Your task to perform on an android device: toggle notifications settings in the gmail app Image 0: 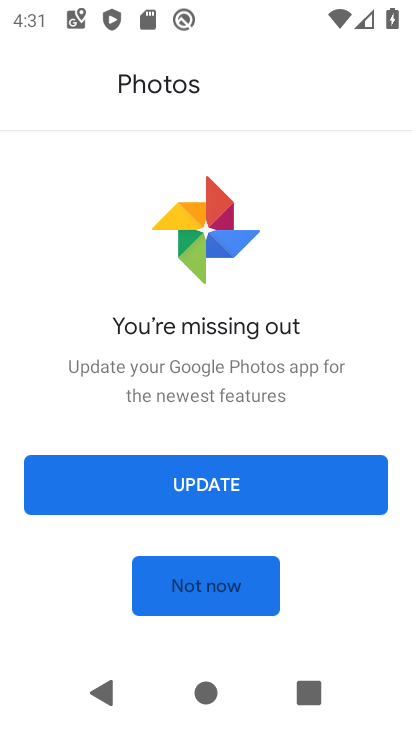
Step 0: press home button
Your task to perform on an android device: toggle notifications settings in the gmail app Image 1: 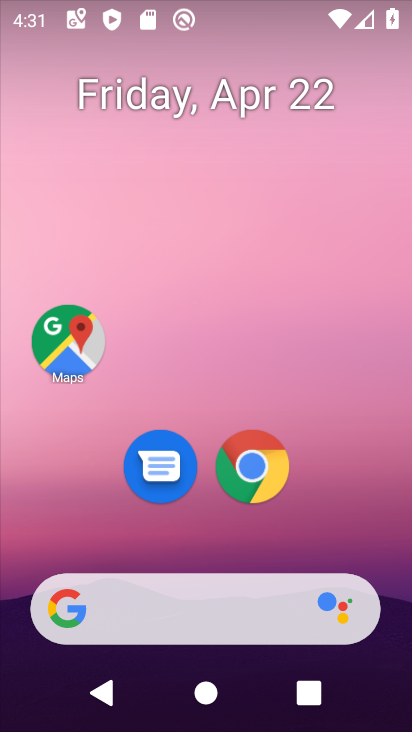
Step 1: drag from (325, 485) to (224, 122)
Your task to perform on an android device: toggle notifications settings in the gmail app Image 2: 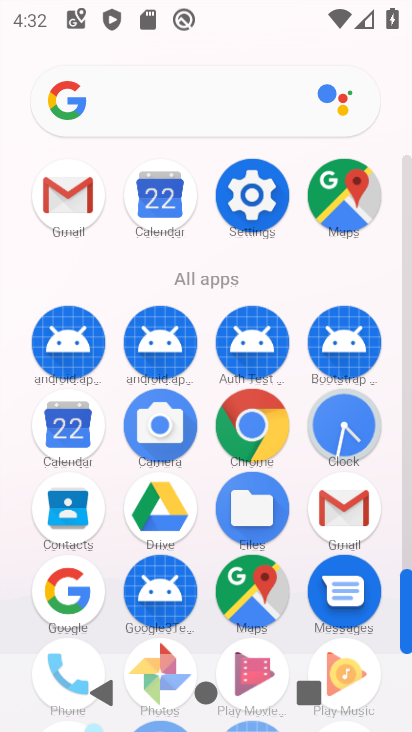
Step 2: click (359, 515)
Your task to perform on an android device: toggle notifications settings in the gmail app Image 3: 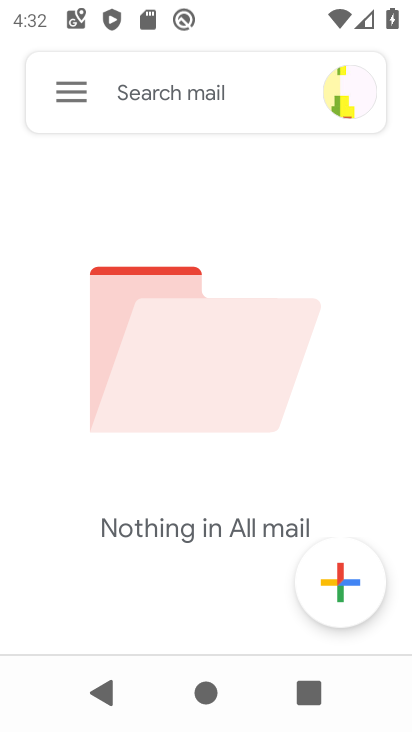
Step 3: click (73, 87)
Your task to perform on an android device: toggle notifications settings in the gmail app Image 4: 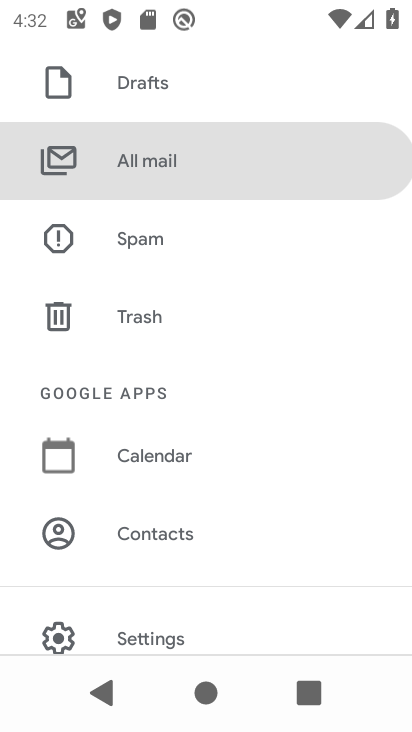
Step 4: click (194, 630)
Your task to perform on an android device: toggle notifications settings in the gmail app Image 5: 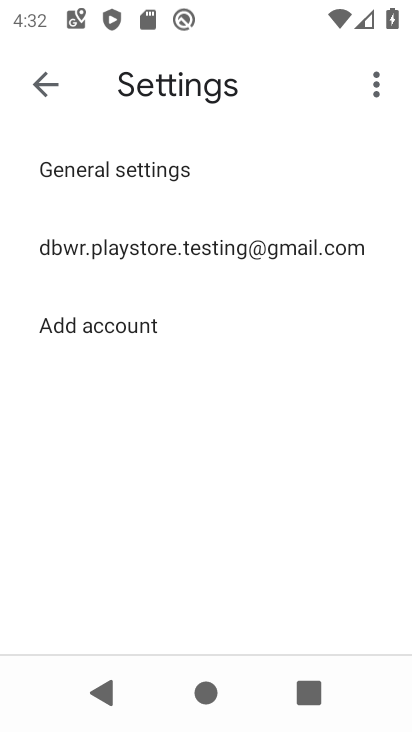
Step 5: click (254, 264)
Your task to perform on an android device: toggle notifications settings in the gmail app Image 6: 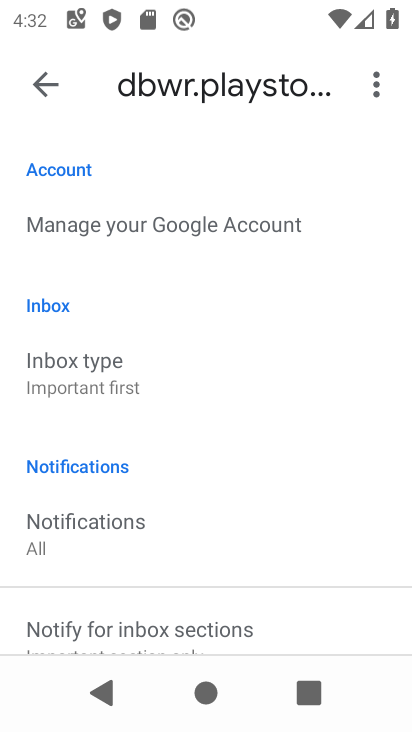
Step 6: drag from (280, 525) to (256, 207)
Your task to perform on an android device: toggle notifications settings in the gmail app Image 7: 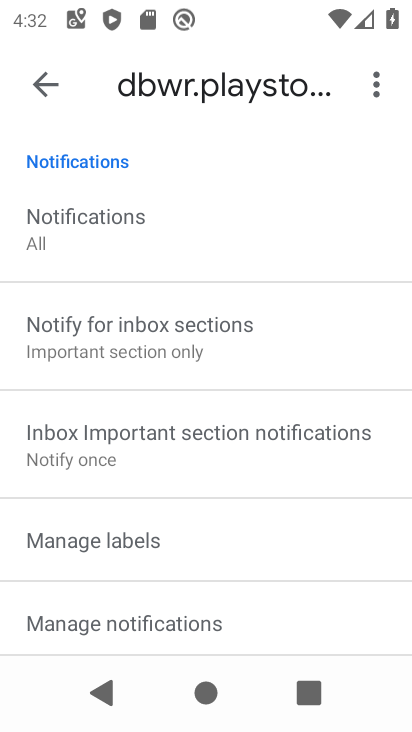
Step 7: click (289, 613)
Your task to perform on an android device: toggle notifications settings in the gmail app Image 8: 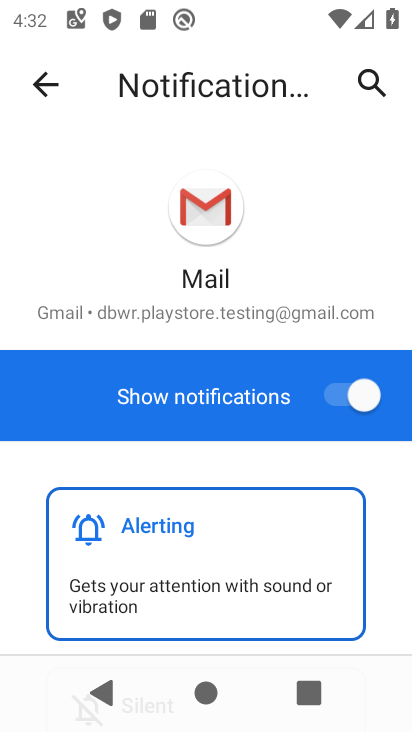
Step 8: drag from (383, 616) to (289, 283)
Your task to perform on an android device: toggle notifications settings in the gmail app Image 9: 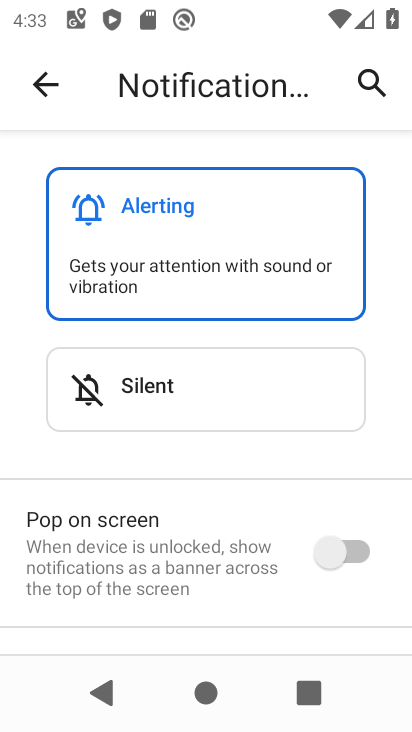
Step 9: click (295, 363)
Your task to perform on an android device: toggle notifications settings in the gmail app Image 10: 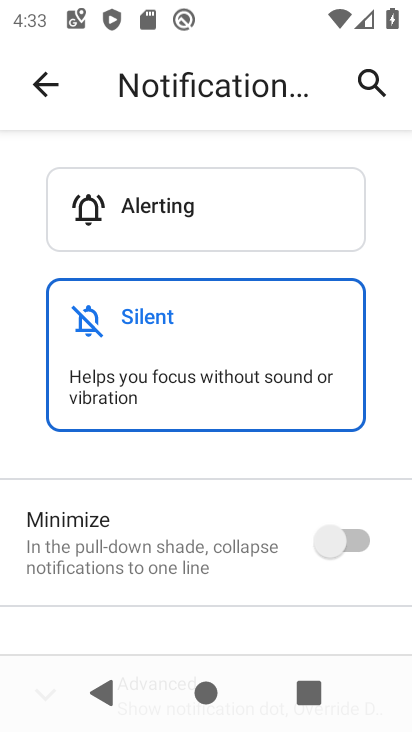
Step 10: click (360, 536)
Your task to perform on an android device: toggle notifications settings in the gmail app Image 11: 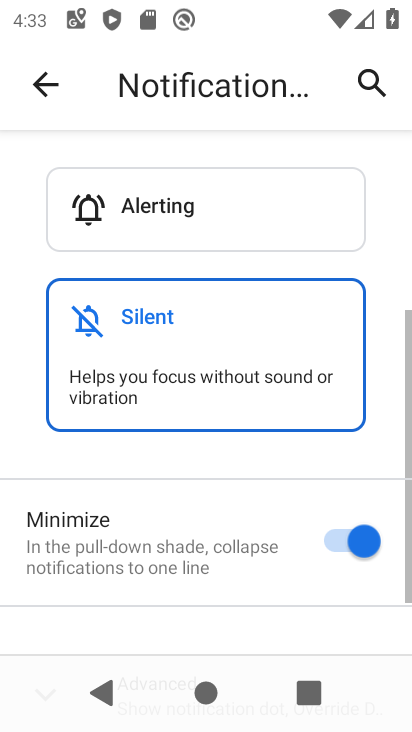
Step 11: task complete